Your task to perform on an android device: make emails show in primary in the gmail app Image 0: 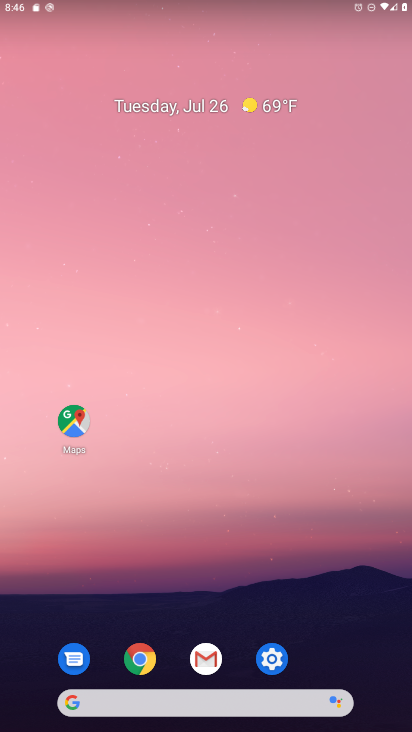
Step 0: click (207, 651)
Your task to perform on an android device: make emails show in primary in the gmail app Image 1: 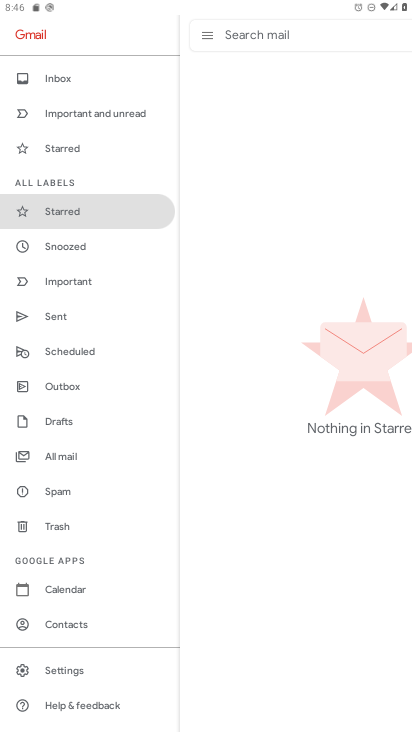
Step 1: click (60, 674)
Your task to perform on an android device: make emails show in primary in the gmail app Image 2: 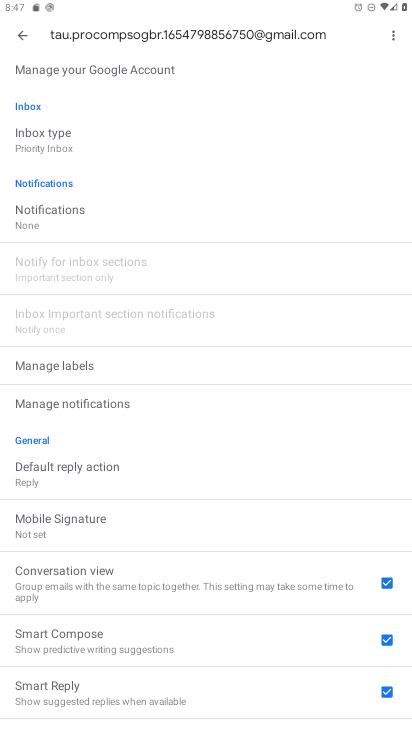
Step 2: click (89, 154)
Your task to perform on an android device: make emails show in primary in the gmail app Image 3: 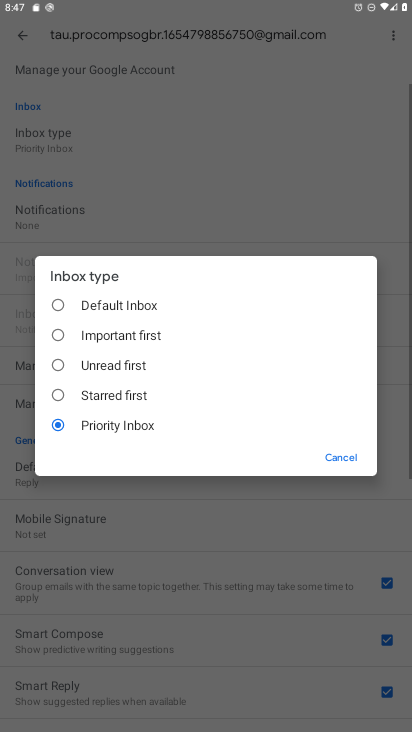
Step 3: click (94, 300)
Your task to perform on an android device: make emails show in primary in the gmail app Image 4: 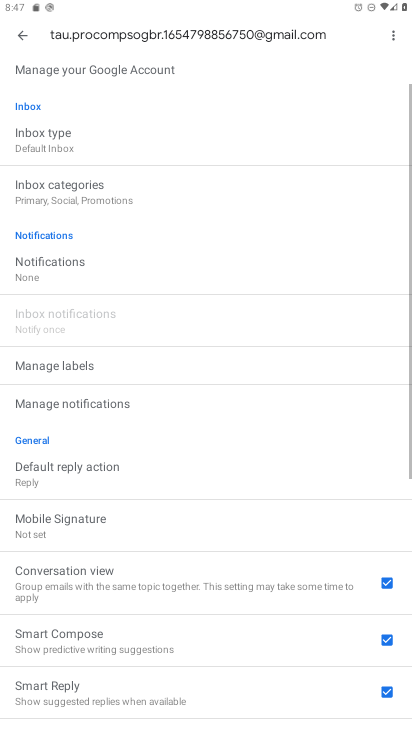
Step 4: click (98, 205)
Your task to perform on an android device: make emails show in primary in the gmail app Image 5: 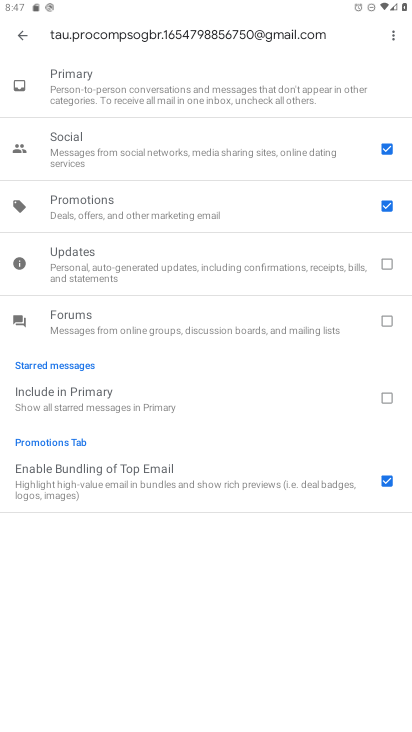
Step 5: click (165, 73)
Your task to perform on an android device: make emails show in primary in the gmail app Image 6: 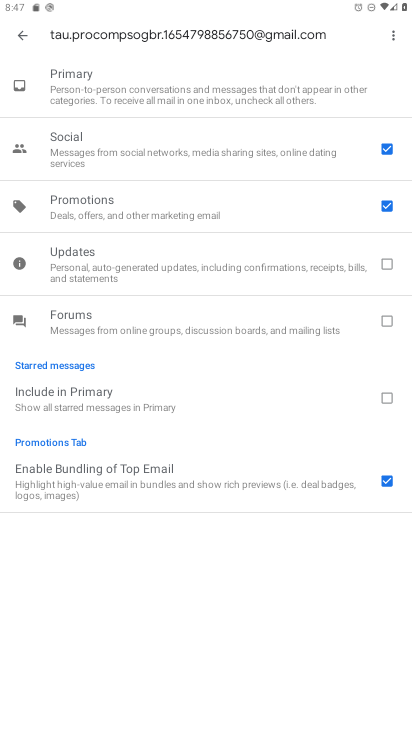
Step 6: task complete